Your task to perform on an android device: Go to Amazon Image 0: 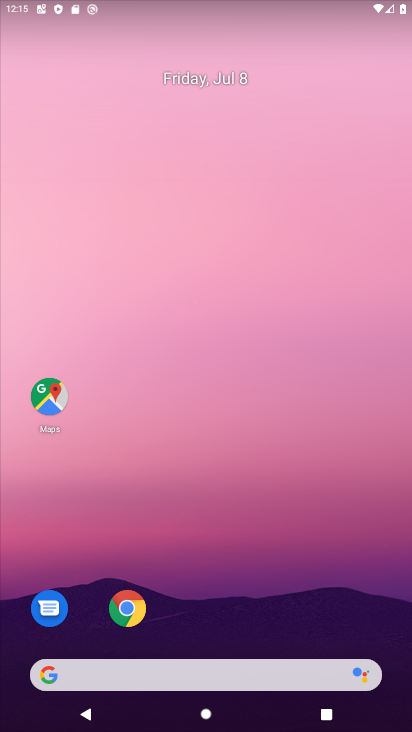
Step 0: press home button
Your task to perform on an android device: Go to Amazon Image 1: 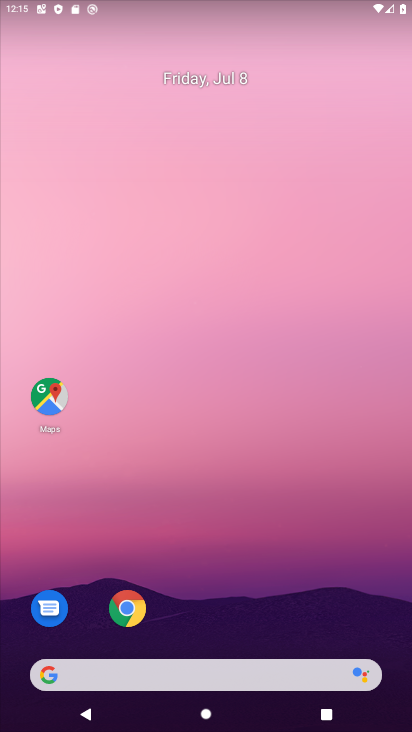
Step 1: drag from (294, 610) to (218, 118)
Your task to perform on an android device: Go to Amazon Image 2: 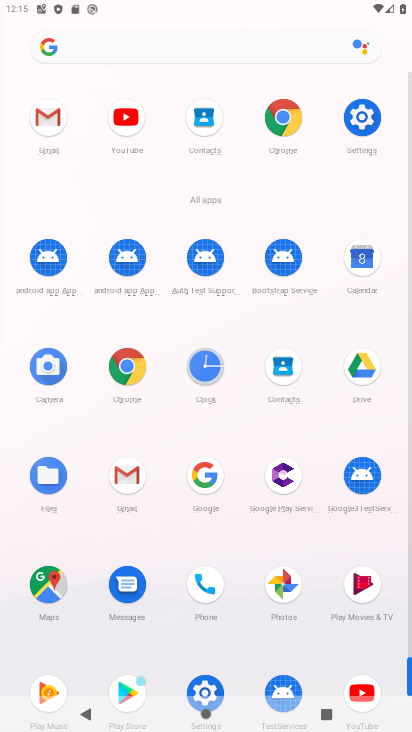
Step 2: click (290, 137)
Your task to perform on an android device: Go to Amazon Image 3: 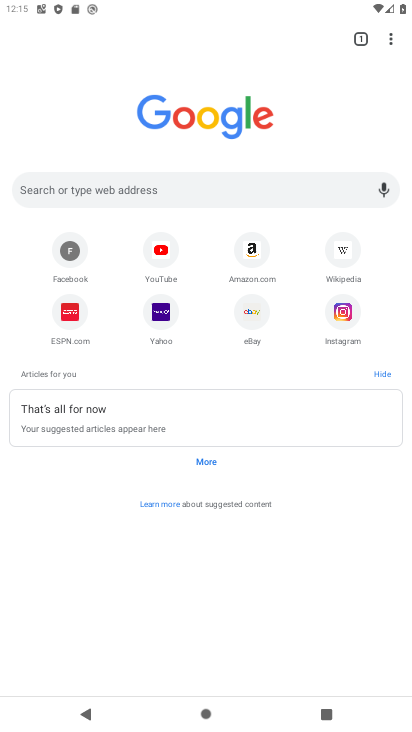
Step 3: click (259, 261)
Your task to perform on an android device: Go to Amazon Image 4: 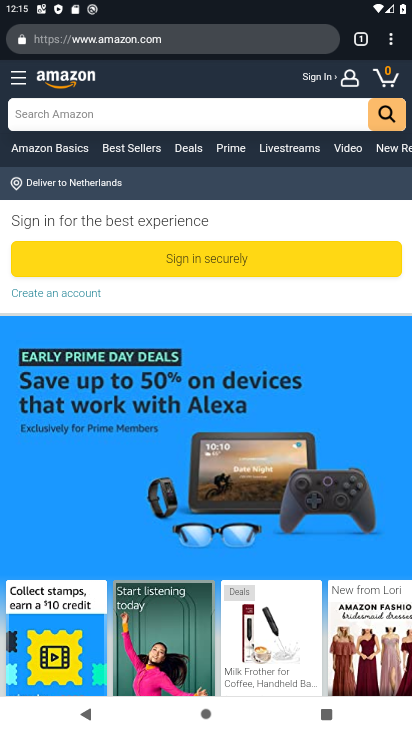
Step 4: task complete